Your task to perform on an android device: change text size in settings app Image 0: 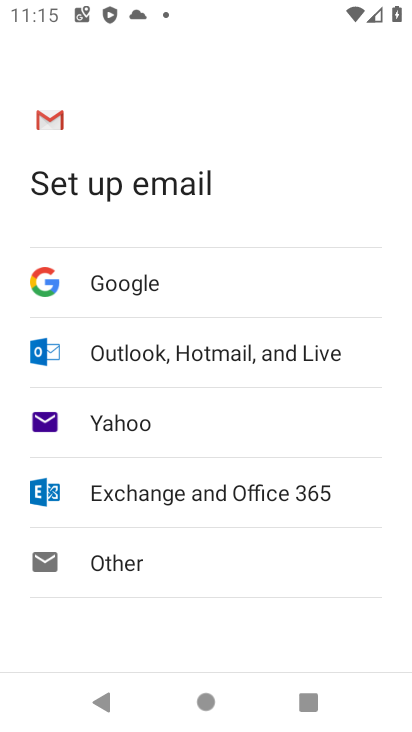
Step 0: press home button
Your task to perform on an android device: change text size in settings app Image 1: 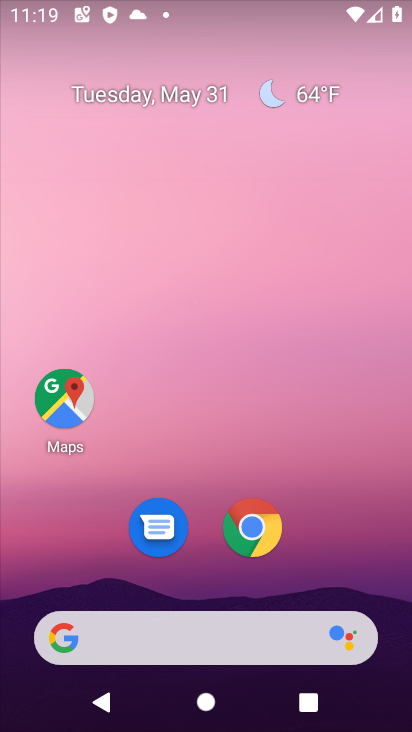
Step 1: drag from (154, 582) to (209, 4)
Your task to perform on an android device: change text size in settings app Image 2: 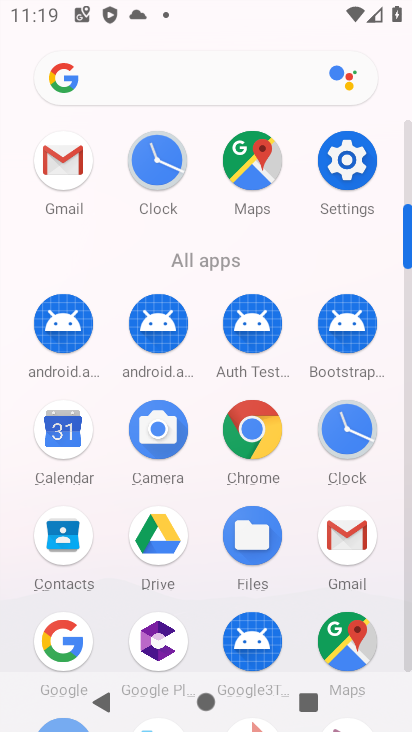
Step 2: click (355, 175)
Your task to perform on an android device: change text size in settings app Image 3: 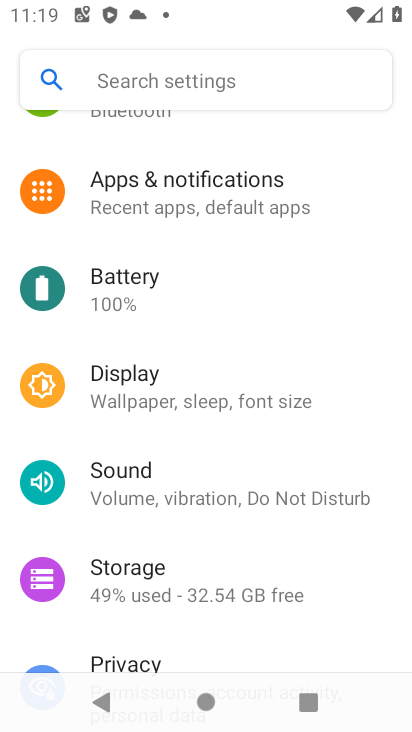
Step 3: click (271, 397)
Your task to perform on an android device: change text size in settings app Image 4: 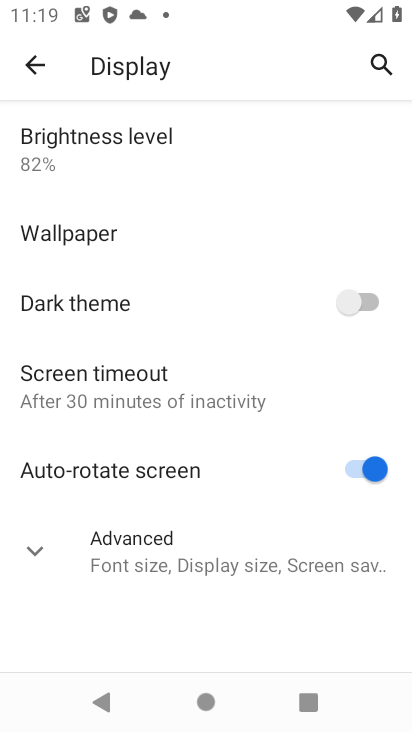
Step 4: click (154, 577)
Your task to perform on an android device: change text size in settings app Image 5: 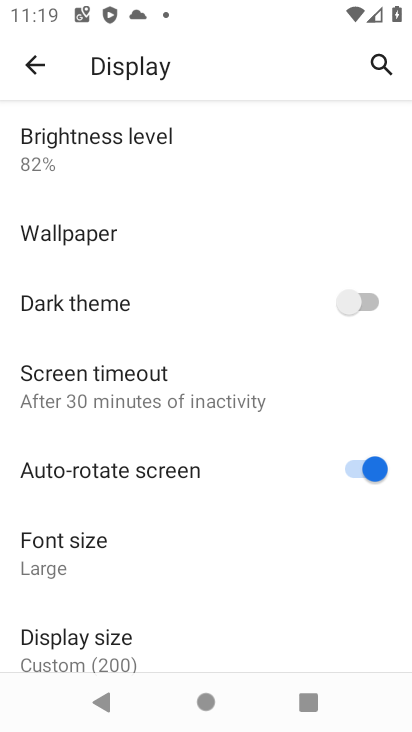
Step 5: click (163, 552)
Your task to perform on an android device: change text size in settings app Image 6: 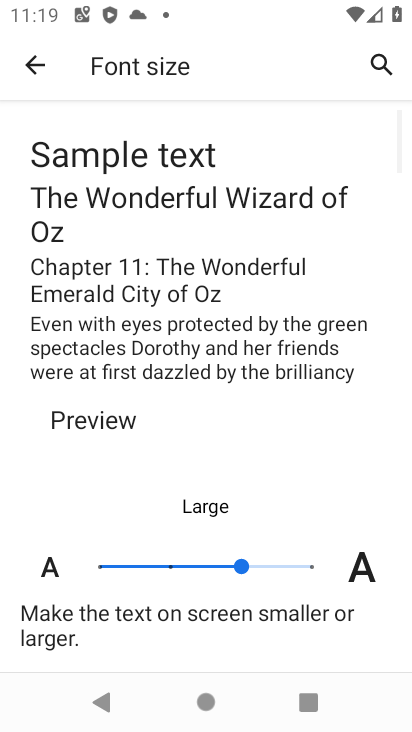
Step 6: click (102, 568)
Your task to perform on an android device: change text size in settings app Image 7: 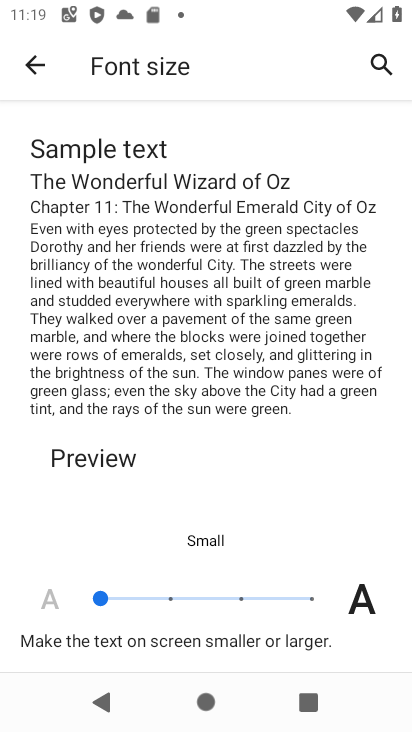
Step 7: task complete